Your task to perform on an android device: check google app version Image 0: 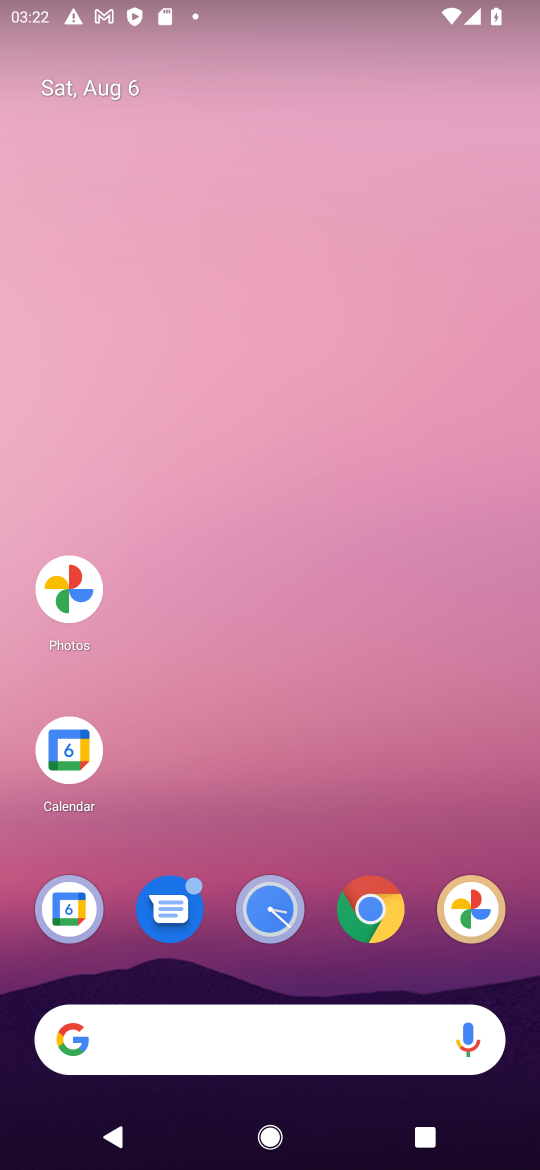
Step 0: click (58, 1047)
Your task to perform on an android device: check google app version Image 1: 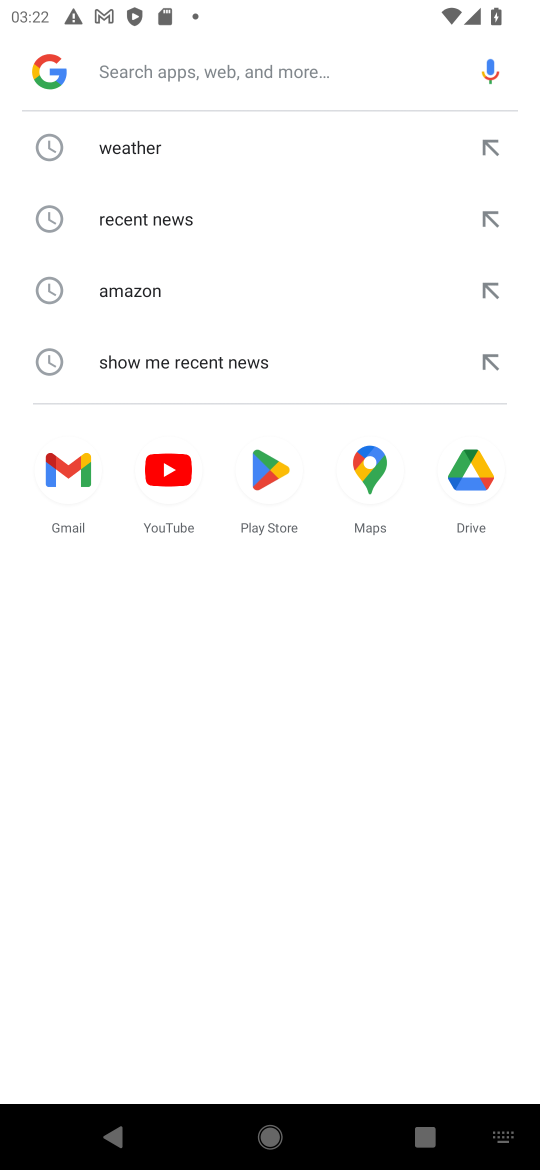
Step 1: click (47, 65)
Your task to perform on an android device: check google app version Image 2: 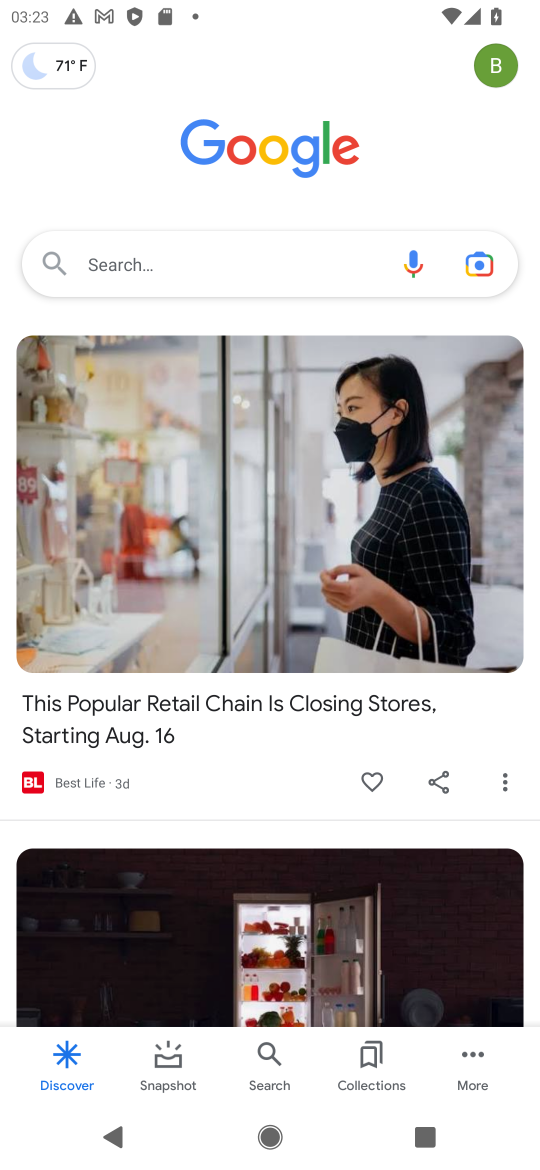
Step 2: click (464, 1052)
Your task to perform on an android device: check google app version Image 3: 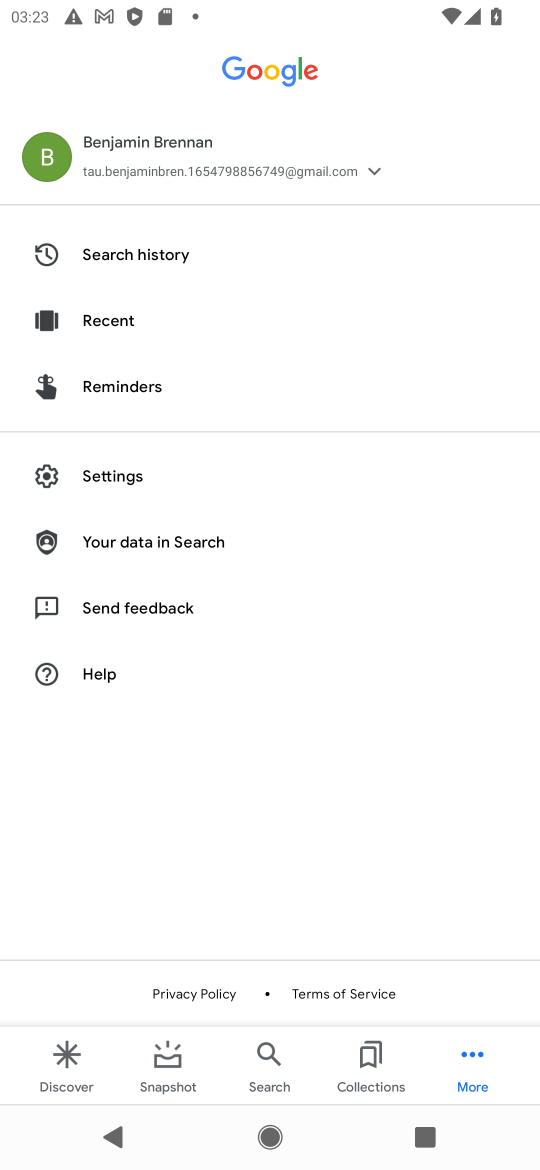
Step 3: click (111, 476)
Your task to perform on an android device: check google app version Image 4: 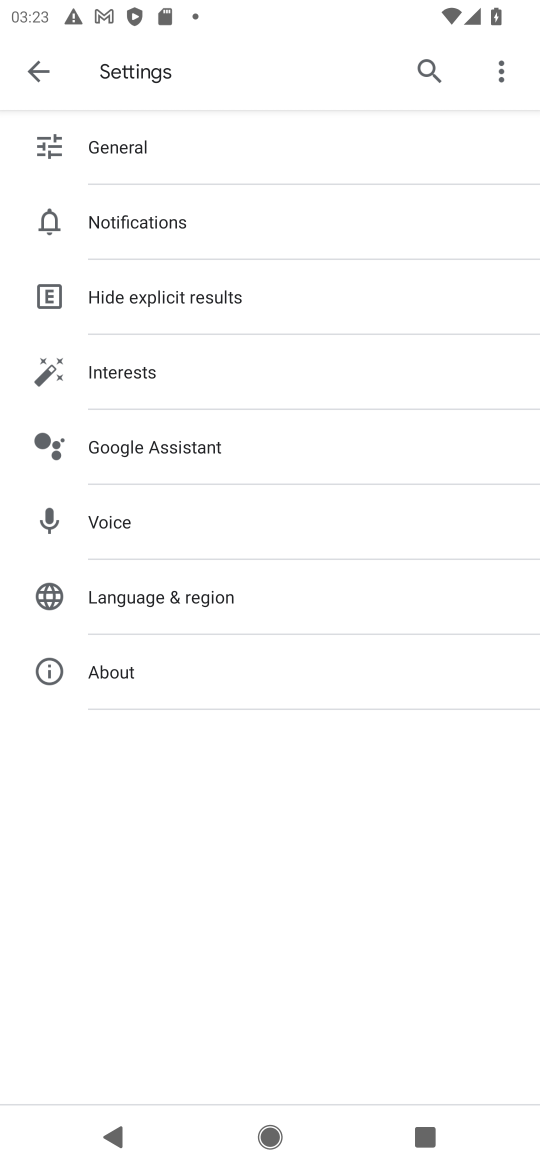
Step 4: click (96, 665)
Your task to perform on an android device: check google app version Image 5: 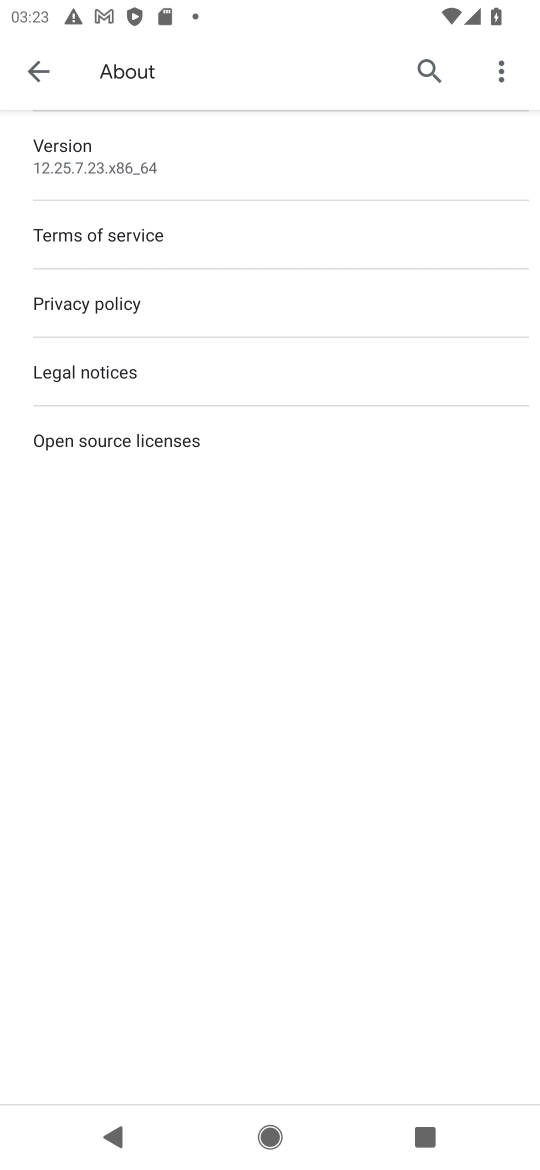
Step 5: task complete